Your task to perform on an android device: check google app version Image 0: 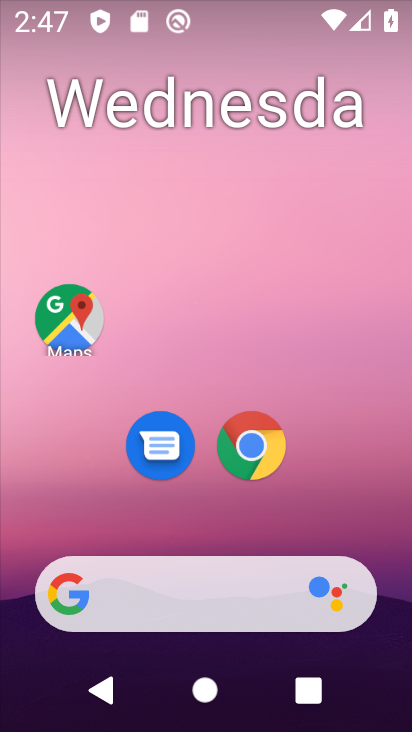
Step 0: click (132, 378)
Your task to perform on an android device: check google app version Image 1: 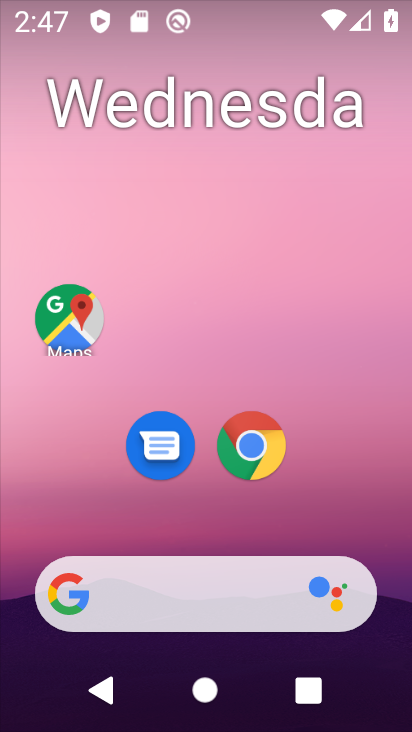
Step 1: click (132, 378)
Your task to perform on an android device: check google app version Image 2: 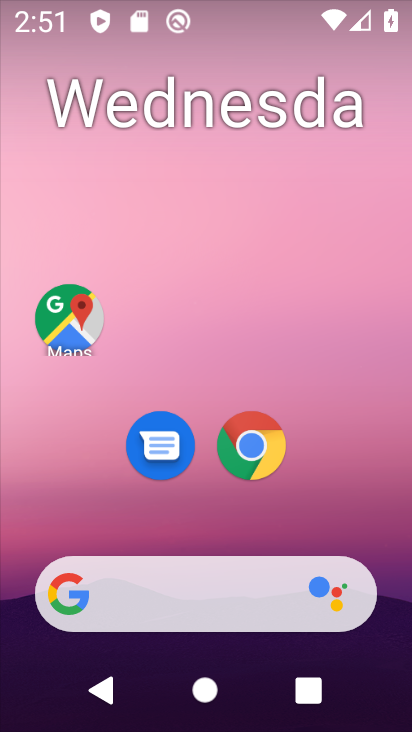
Step 2: drag from (296, 489) to (283, 435)
Your task to perform on an android device: check google app version Image 3: 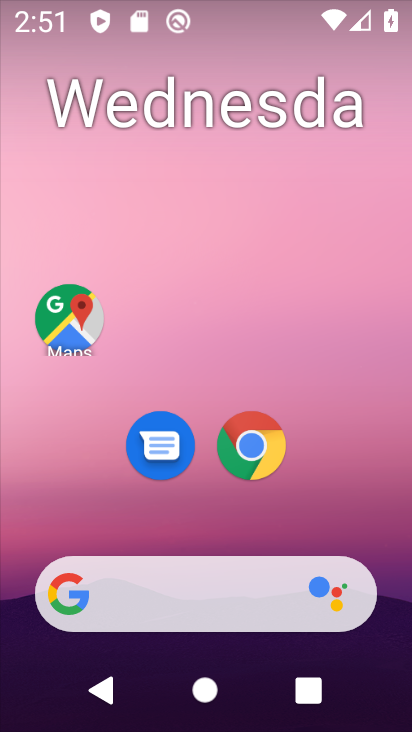
Step 3: drag from (319, 524) to (310, 48)
Your task to perform on an android device: check google app version Image 4: 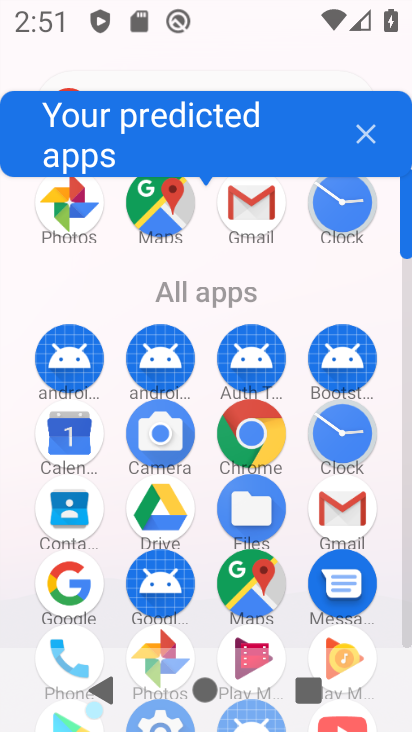
Step 4: click (70, 578)
Your task to perform on an android device: check google app version Image 5: 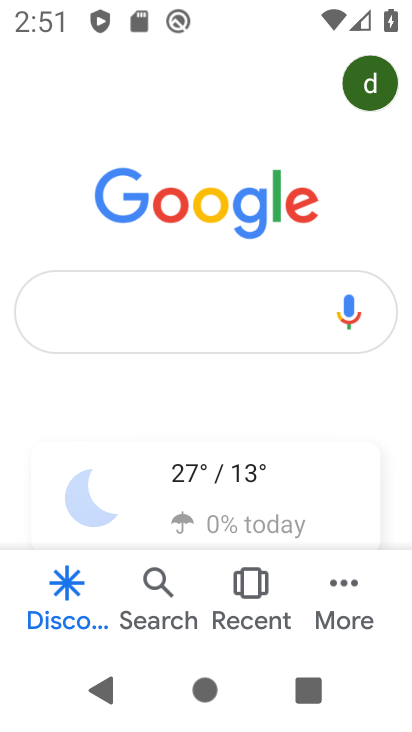
Step 5: click (366, 76)
Your task to perform on an android device: check google app version Image 6: 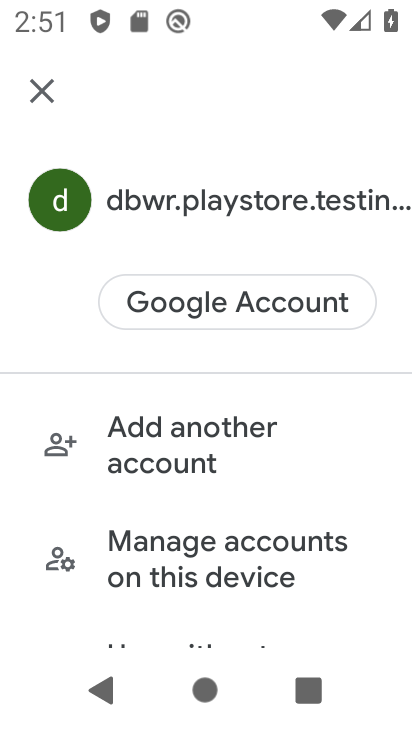
Step 6: drag from (217, 452) to (223, 166)
Your task to perform on an android device: check google app version Image 7: 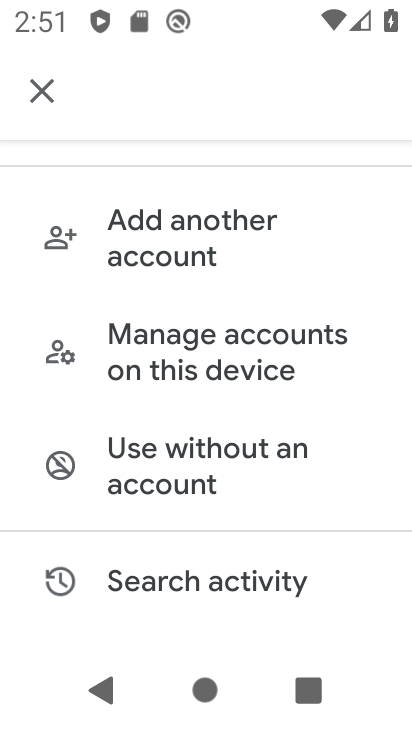
Step 7: drag from (210, 398) to (183, 166)
Your task to perform on an android device: check google app version Image 8: 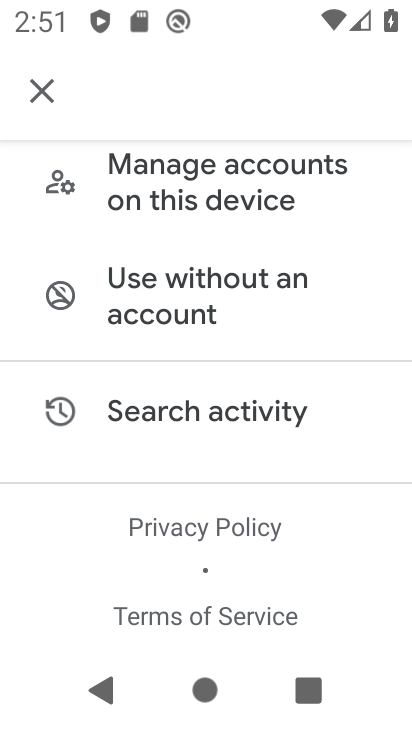
Step 8: drag from (212, 374) to (208, 151)
Your task to perform on an android device: check google app version Image 9: 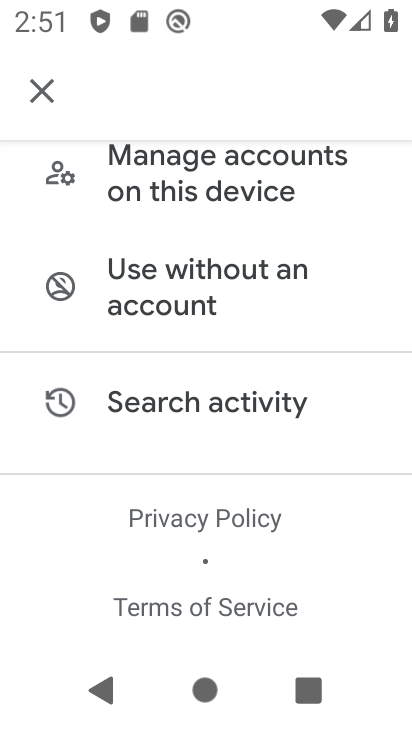
Step 9: press back button
Your task to perform on an android device: check google app version Image 10: 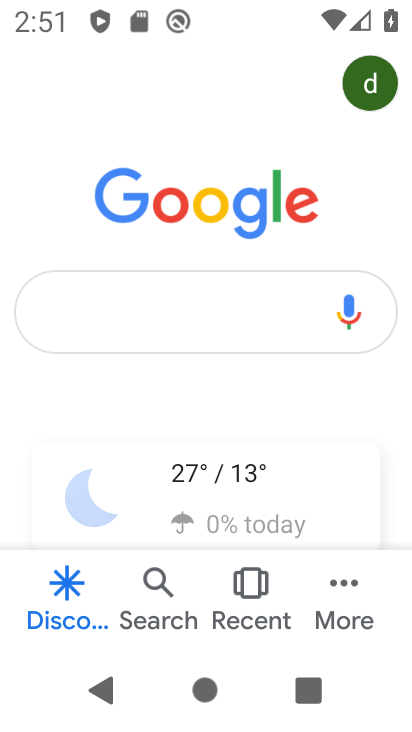
Step 10: click (355, 594)
Your task to perform on an android device: check google app version Image 11: 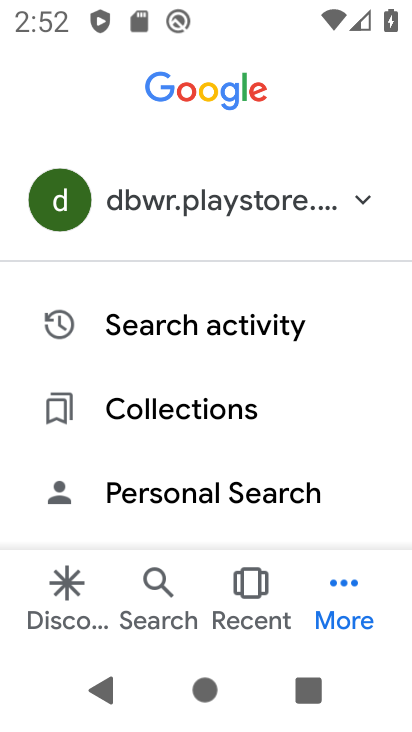
Step 11: drag from (190, 349) to (172, 132)
Your task to perform on an android device: check google app version Image 12: 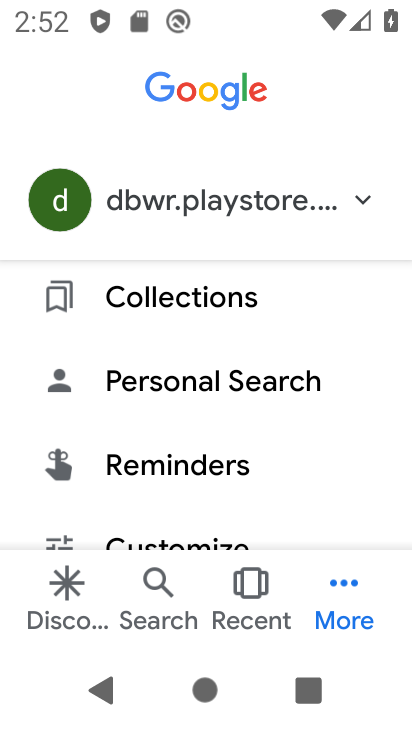
Step 12: drag from (211, 413) to (219, 202)
Your task to perform on an android device: check google app version Image 13: 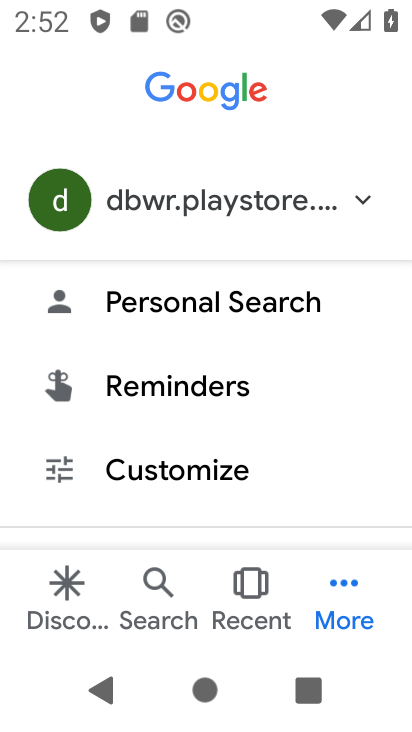
Step 13: drag from (290, 461) to (311, 156)
Your task to perform on an android device: check google app version Image 14: 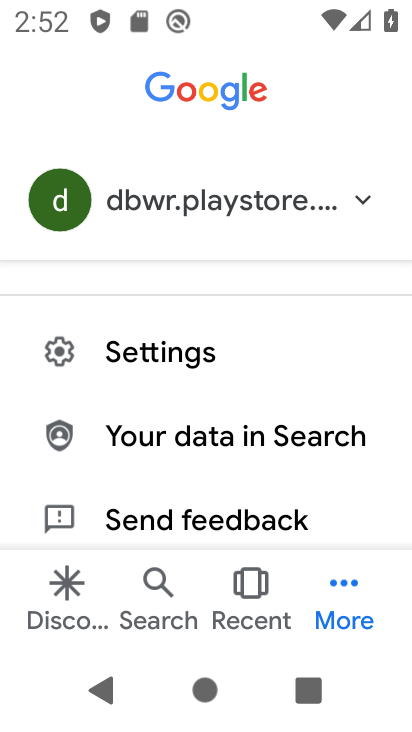
Step 14: click (286, 340)
Your task to perform on an android device: check google app version Image 15: 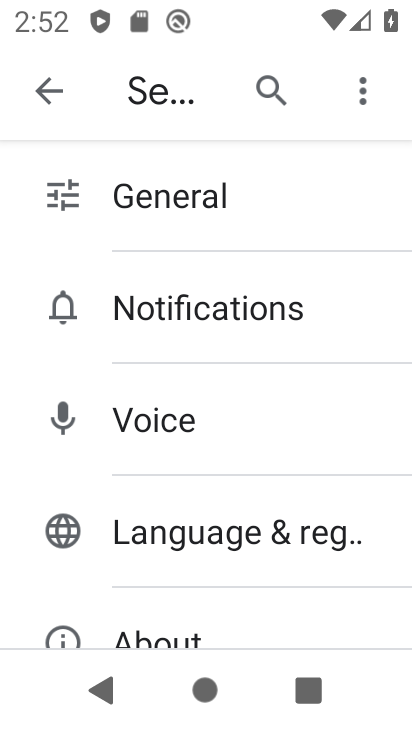
Step 15: drag from (272, 444) to (235, 156)
Your task to perform on an android device: check google app version Image 16: 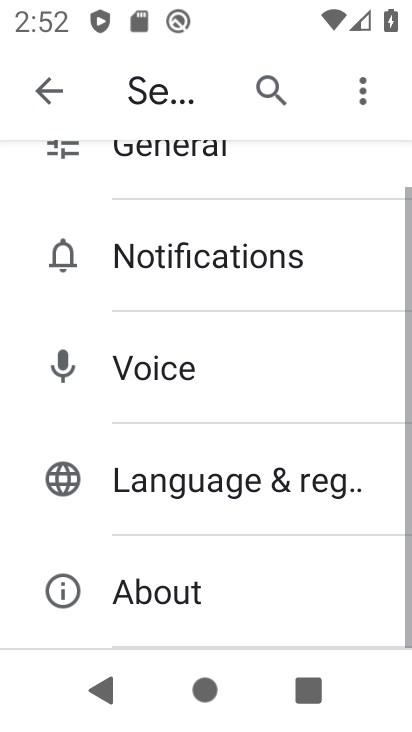
Step 16: click (269, 582)
Your task to perform on an android device: check google app version Image 17: 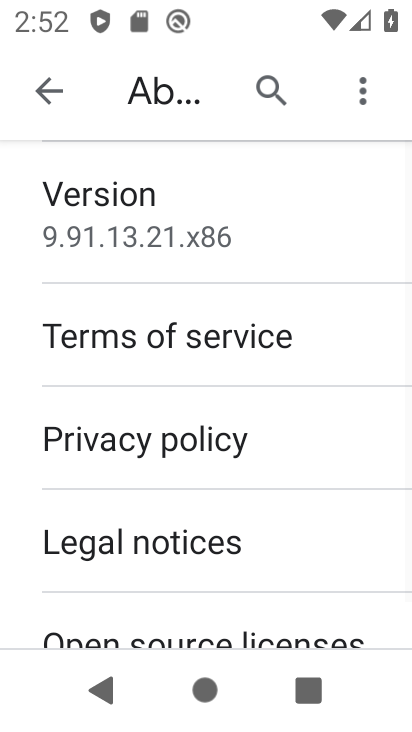
Step 17: click (200, 214)
Your task to perform on an android device: check google app version Image 18: 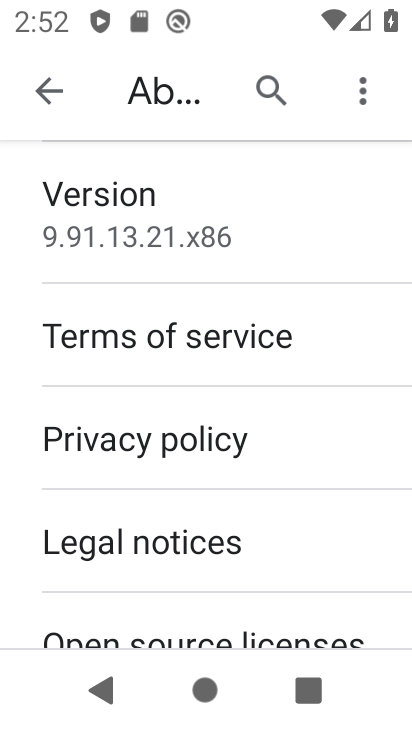
Step 18: task complete